Your task to perform on an android device: clear all cookies in the chrome app Image 0: 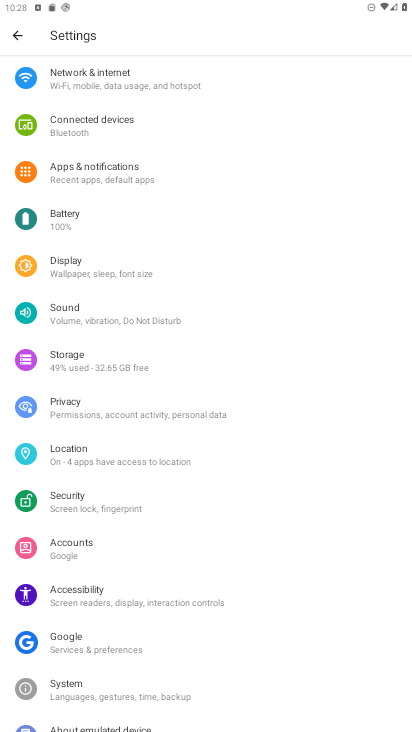
Step 0: press home button
Your task to perform on an android device: clear all cookies in the chrome app Image 1: 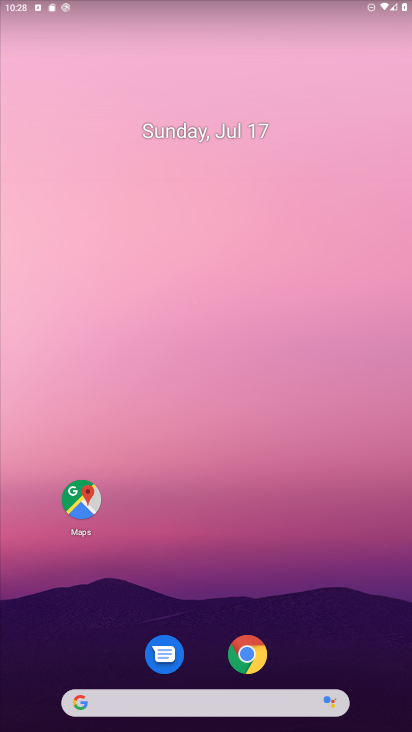
Step 1: click (229, 655)
Your task to perform on an android device: clear all cookies in the chrome app Image 2: 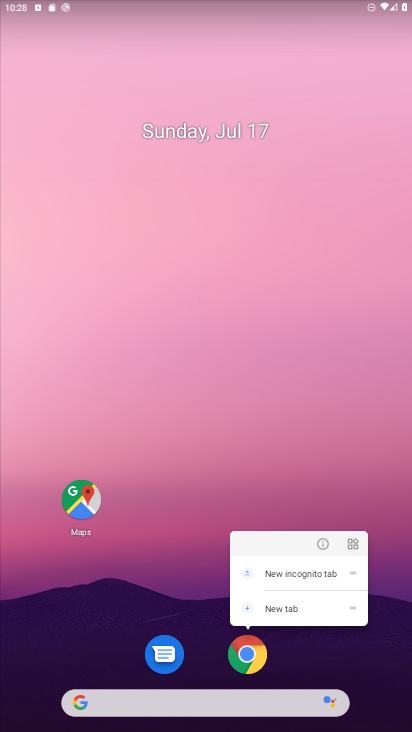
Step 2: click (245, 649)
Your task to perform on an android device: clear all cookies in the chrome app Image 3: 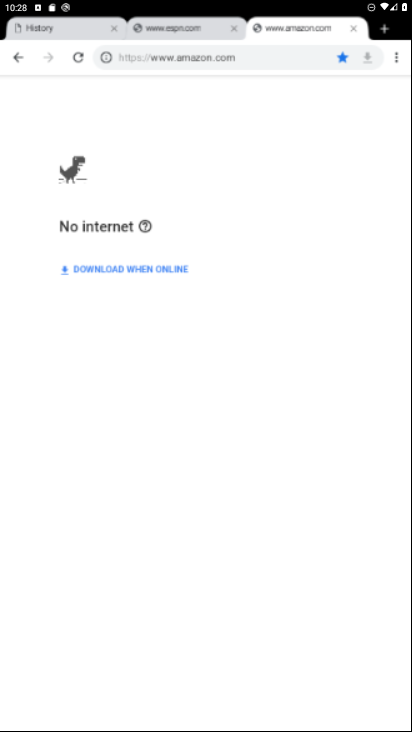
Step 3: click (396, 50)
Your task to perform on an android device: clear all cookies in the chrome app Image 4: 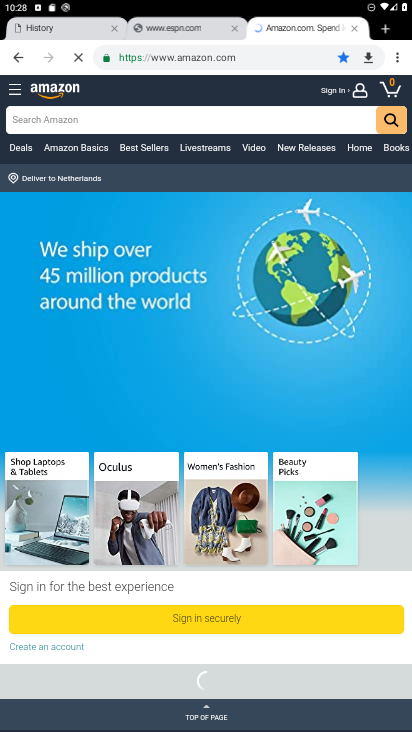
Step 4: click (395, 56)
Your task to perform on an android device: clear all cookies in the chrome app Image 5: 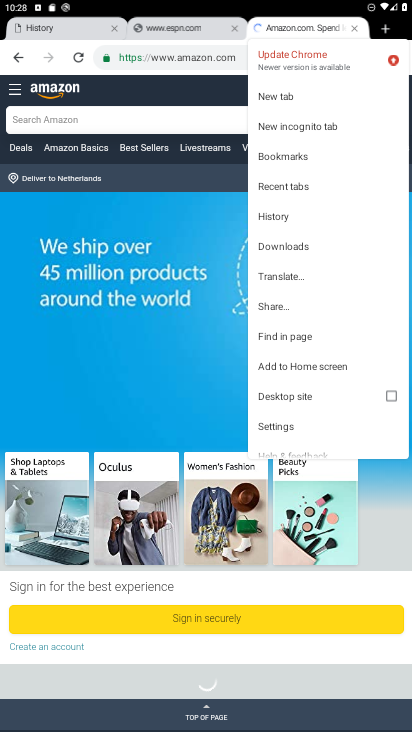
Step 5: click (275, 212)
Your task to perform on an android device: clear all cookies in the chrome app Image 6: 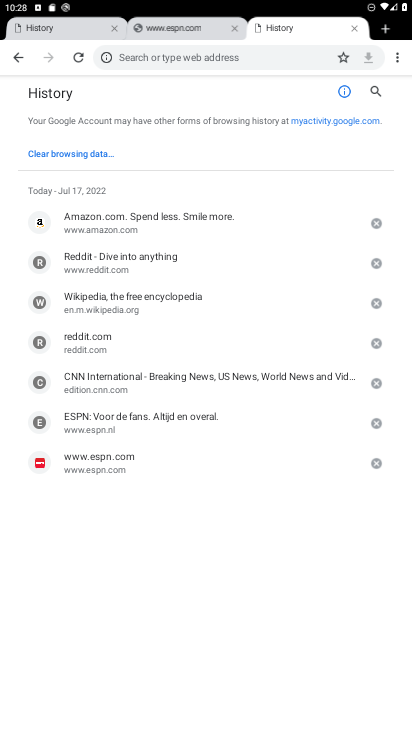
Step 6: click (53, 147)
Your task to perform on an android device: clear all cookies in the chrome app Image 7: 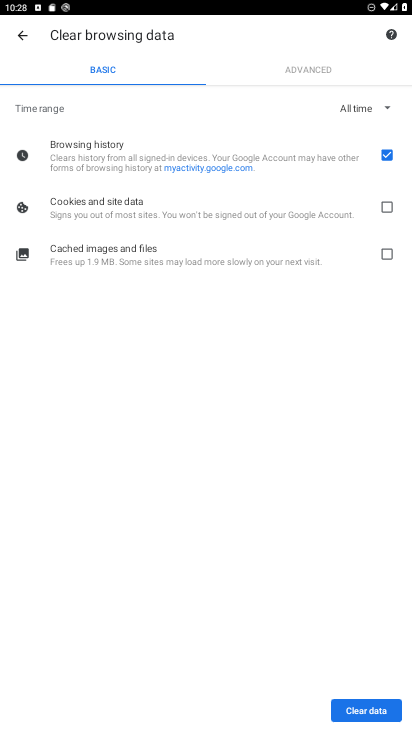
Step 7: click (360, 714)
Your task to perform on an android device: clear all cookies in the chrome app Image 8: 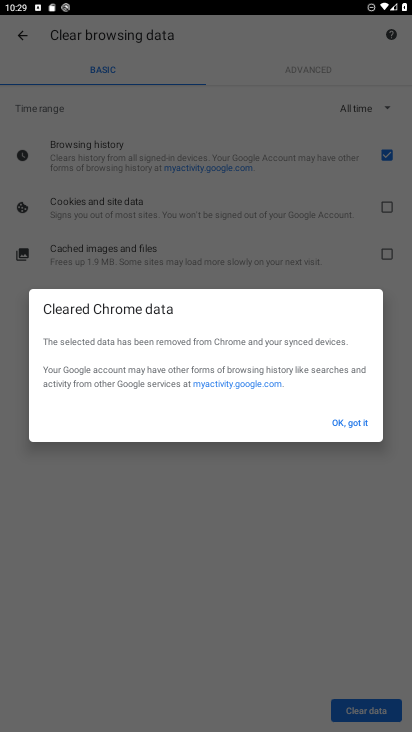
Step 8: click (353, 415)
Your task to perform on an android device: clear all cookies in the chrome app Image 9: 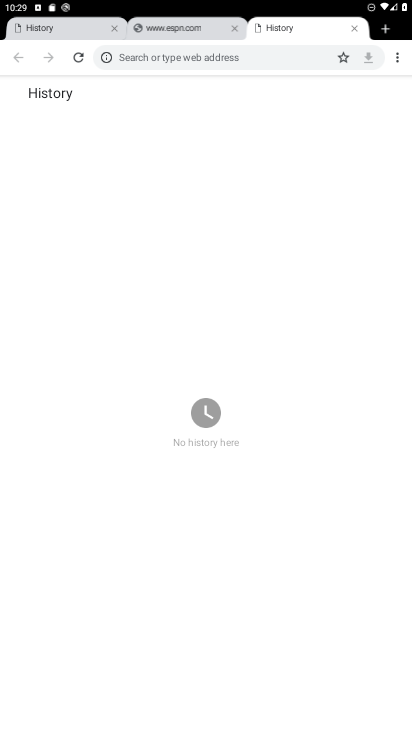
Step 9: task complete